Your task to perform on an android device: Do I have any events tomorrow? Image 0: 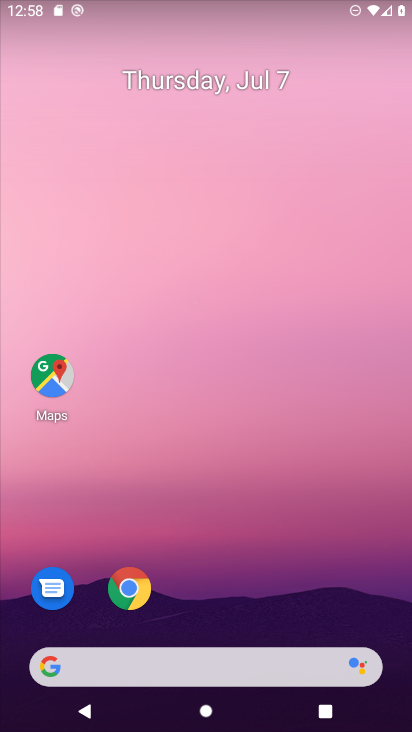
Step 0: drag from (281, 645) to (329, 123)
Your task to perform on an android device: Do I have any events tomorrow? Image 1: 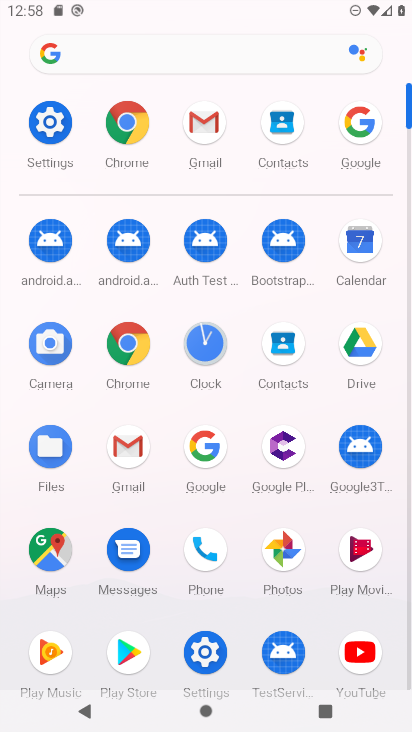
Step 1: click (368, 233)
Your task to perform on an android device: Do I have any events tomorrow? Image 2: 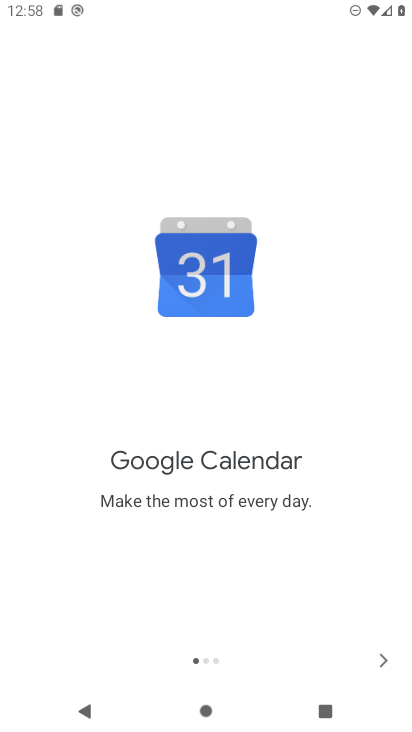
Step 2: click (382, 662)
Your task to perform on an android device: Do I have any events tomorrow? Image 3: 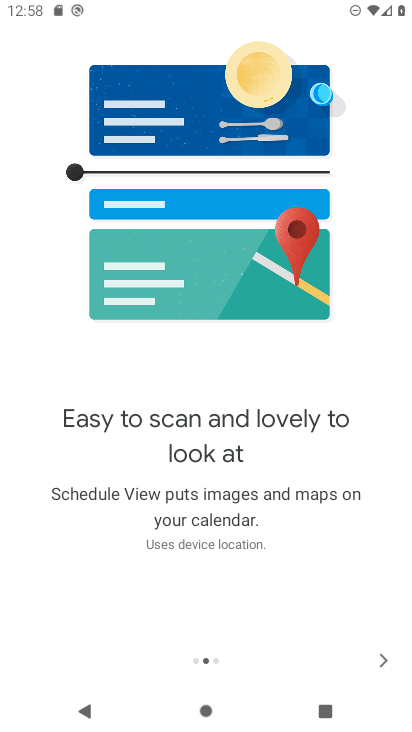
Step 3: click (382, 662)
Your task to perform on an android device: Do I have any events tomorrow? Image 4: 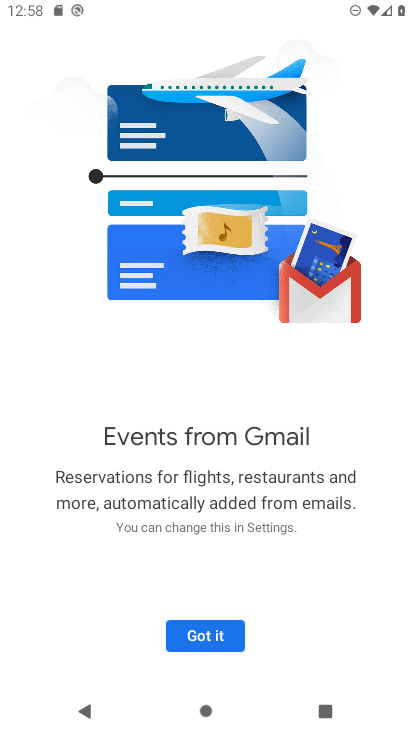
Step 4: click (233, 643)
Your task to perform on an android device: Do I have any events tomorrow? Image 5: 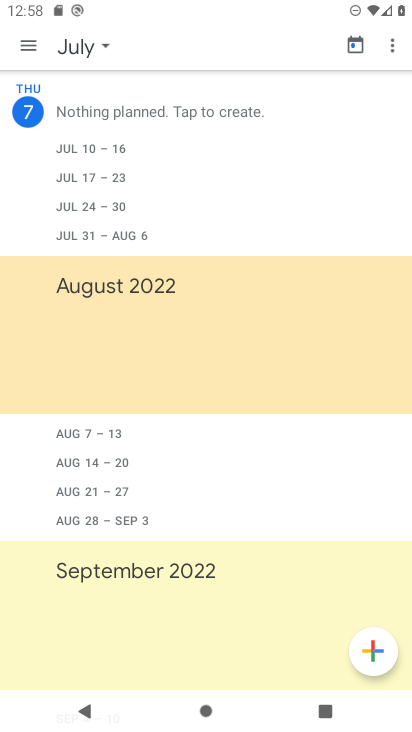
Step 5: click (90, 38)
Your task to perform on an android device: Do I have any events tomorrow? Image 6: 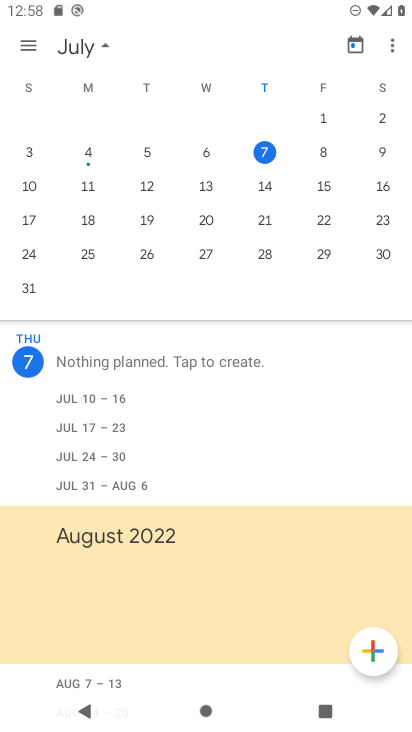
Step 6: click (322, 150)
Your task to perform on an android device: Do I have any events tomorrow? Image 7: 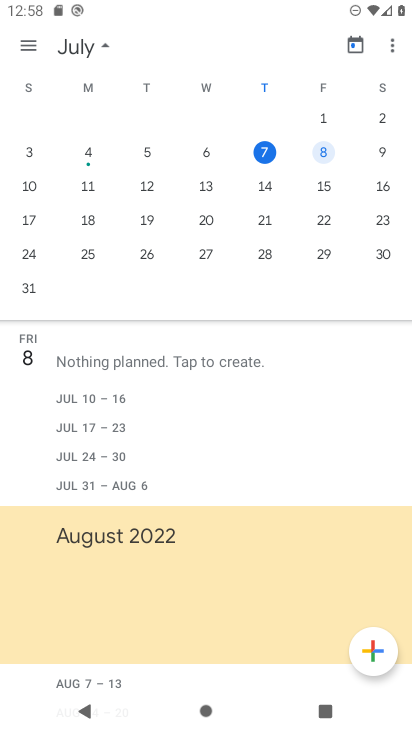
Step 7: task complete